Your task to perform on an android device: turn off location history Image 0: 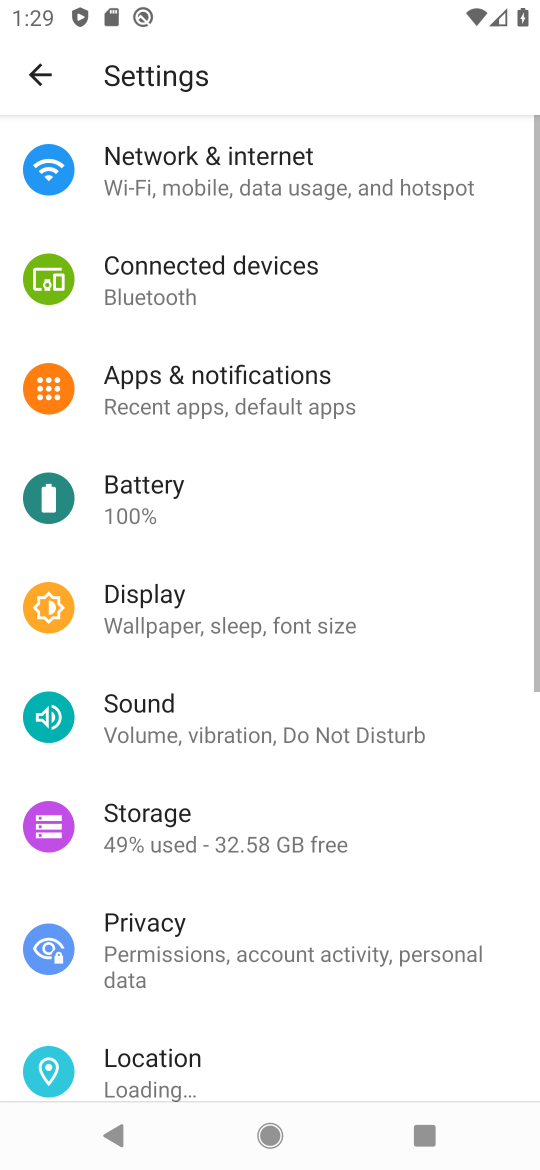
Step 0: drag from (278, 951) to (466, 309)
Your task to perform on an android device: turn off location history Image 1: 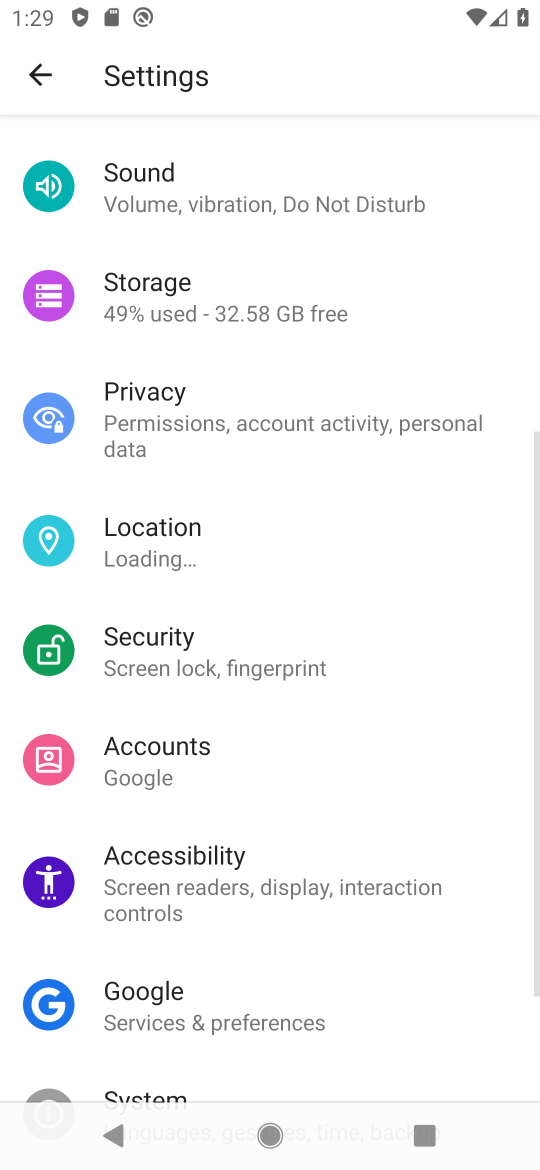
Step 1: press home button
Your task to perform on an android device: turn off location history Image 2: 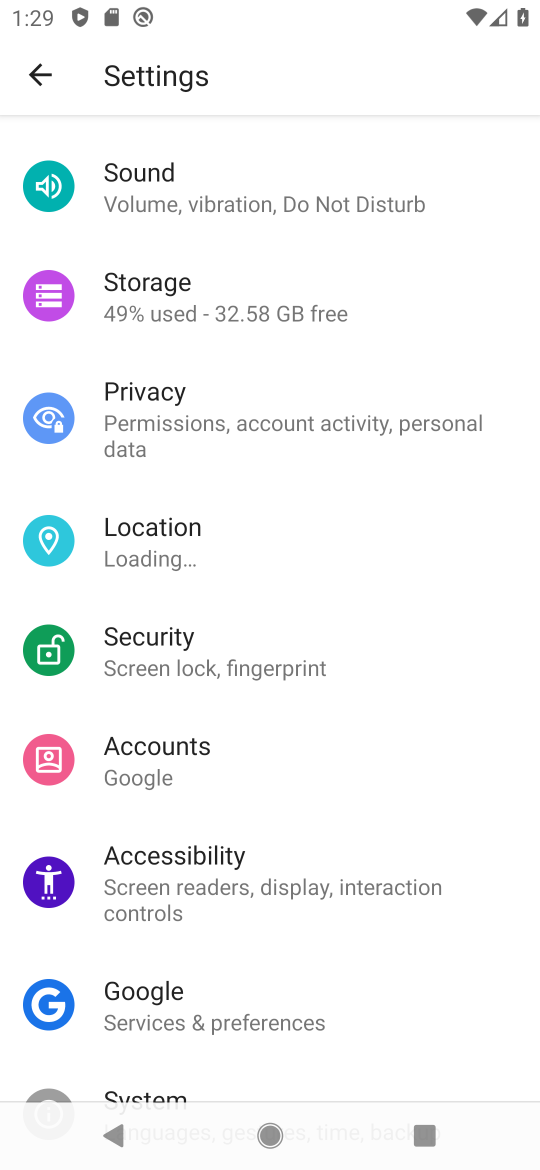
Step 2: drag from (251, 836) to (401, 163)
Your task to perform on an android device: turn off location history Image 3: 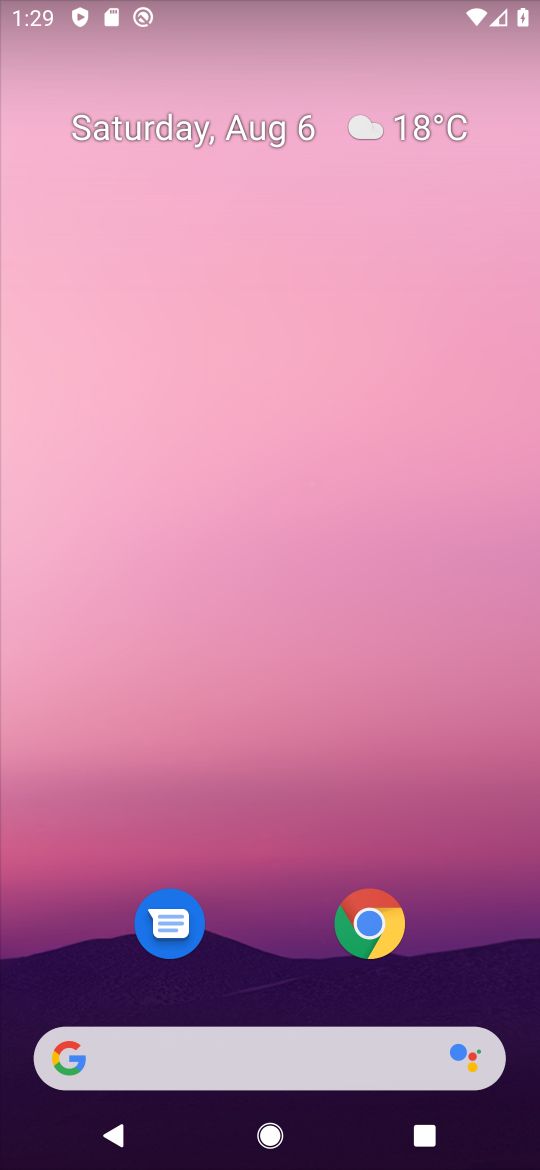
Step 3: drag from (263, 954) to (266, 217)
Your task to perform on an android device: turn off location history Image 4: 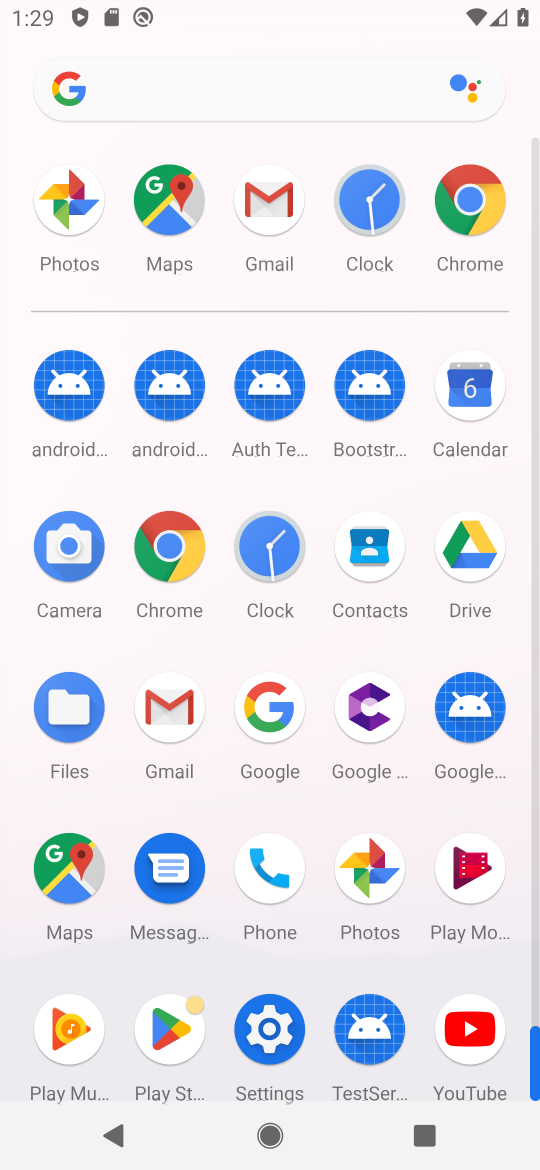
Step 4: click (280, 1025)
Your task to perform on an android device: turn off location history Image 5: 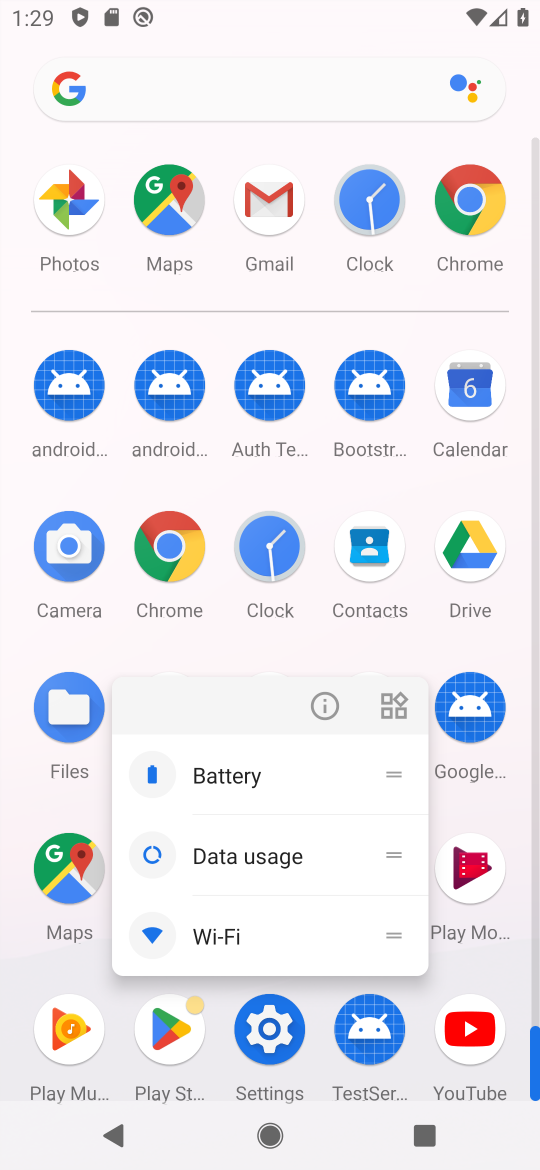
Step 5: click (339, 705)
Your task to perform on an android device: turn off location history Image 6: 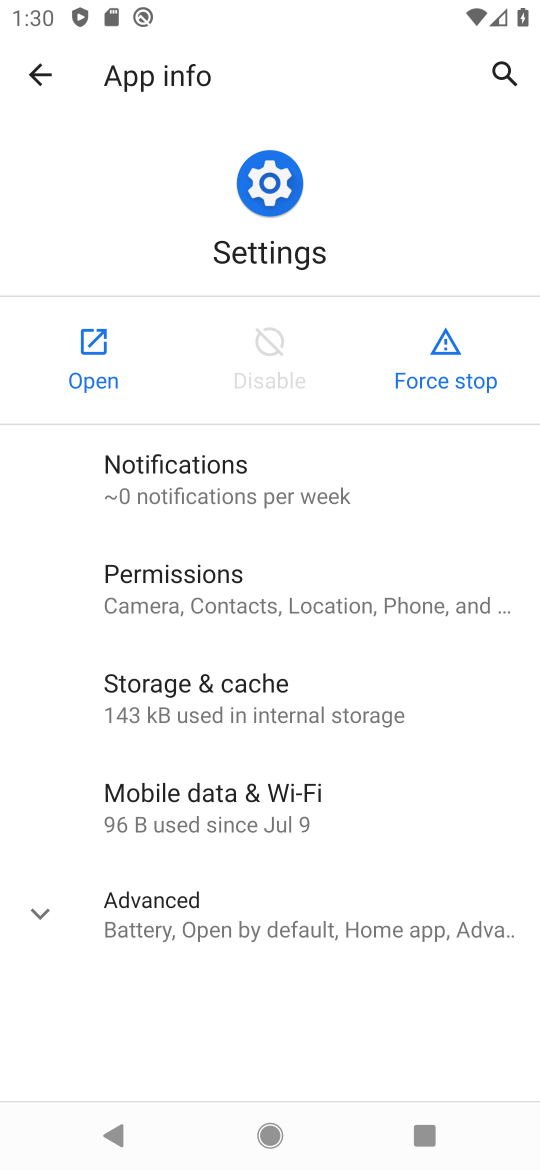
Step 6: click (80, 353)
Your task to perform on an android device: turn off location history Image 7: 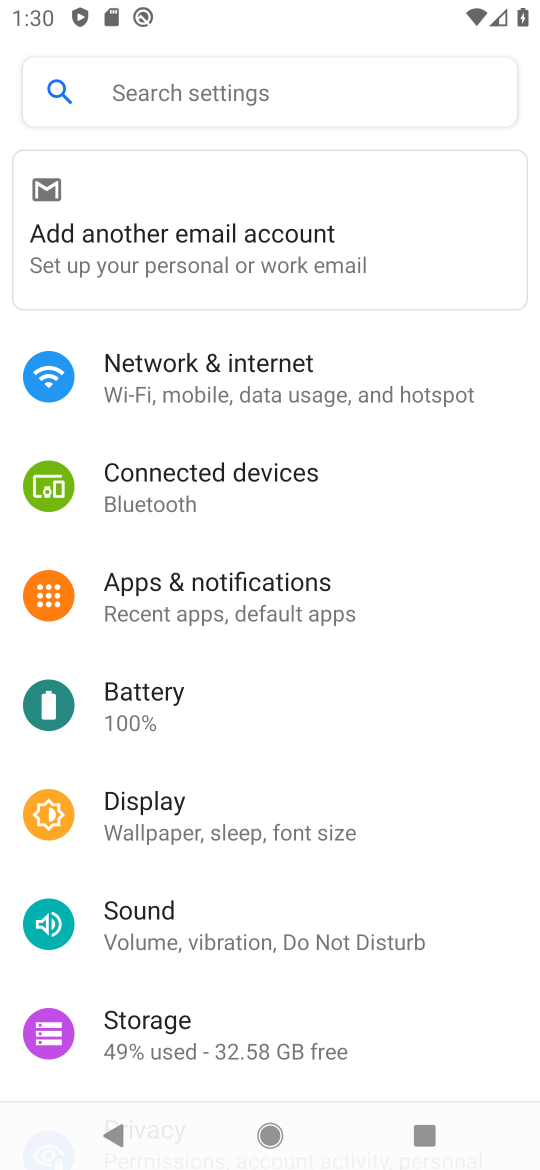
Step 7: drag from (261, 927) to (300, 184)
Your task to perform on an android device: turn off location history Image 8: 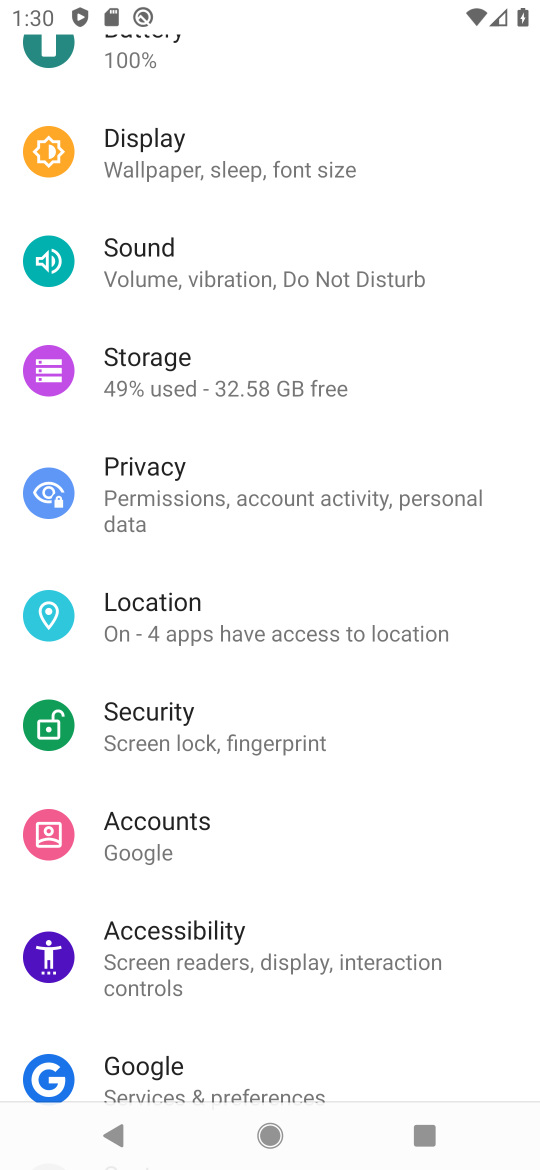
Step 8: click (177, 625)
Your task to perform on an android device: turn off location history Image 9: 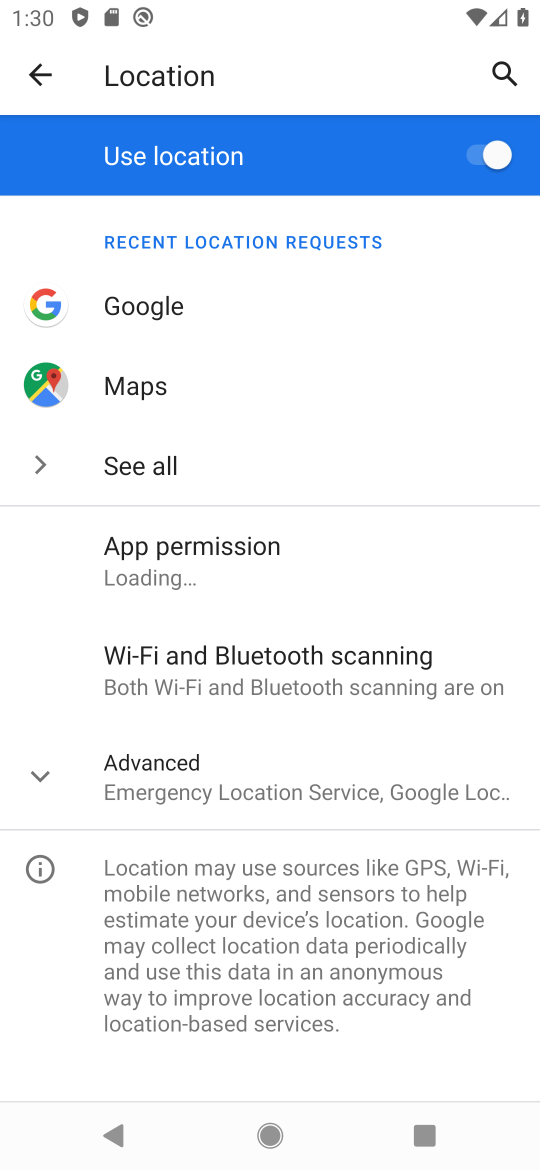
Step 9: click (215, 792)
Your task to perform on an android device: turn off location history Image 10: 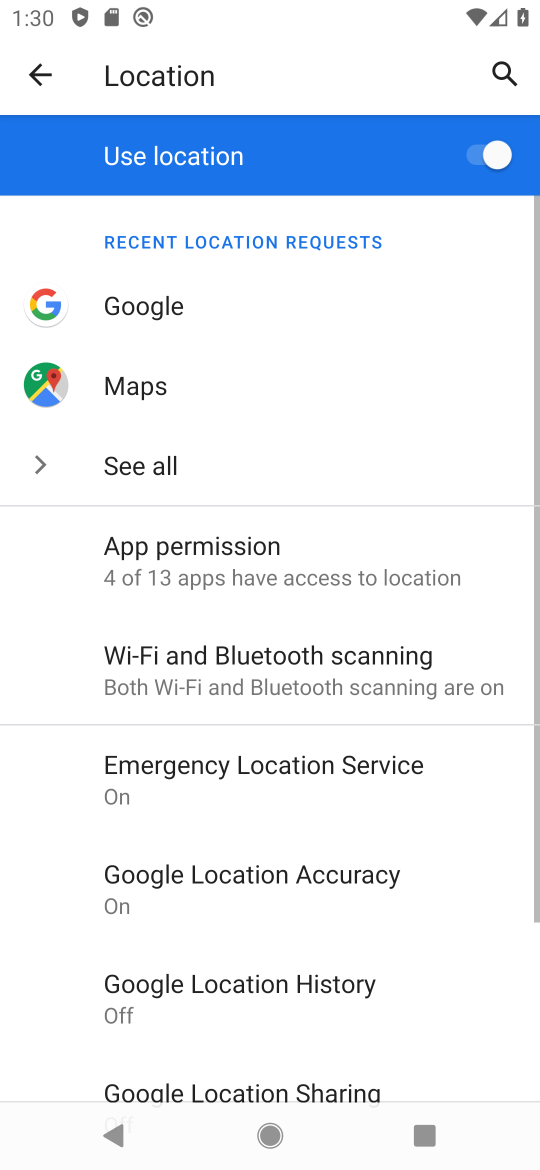
Step 10: click (266, 994)
Your task to perform on an android device: turn off location history Image 11: 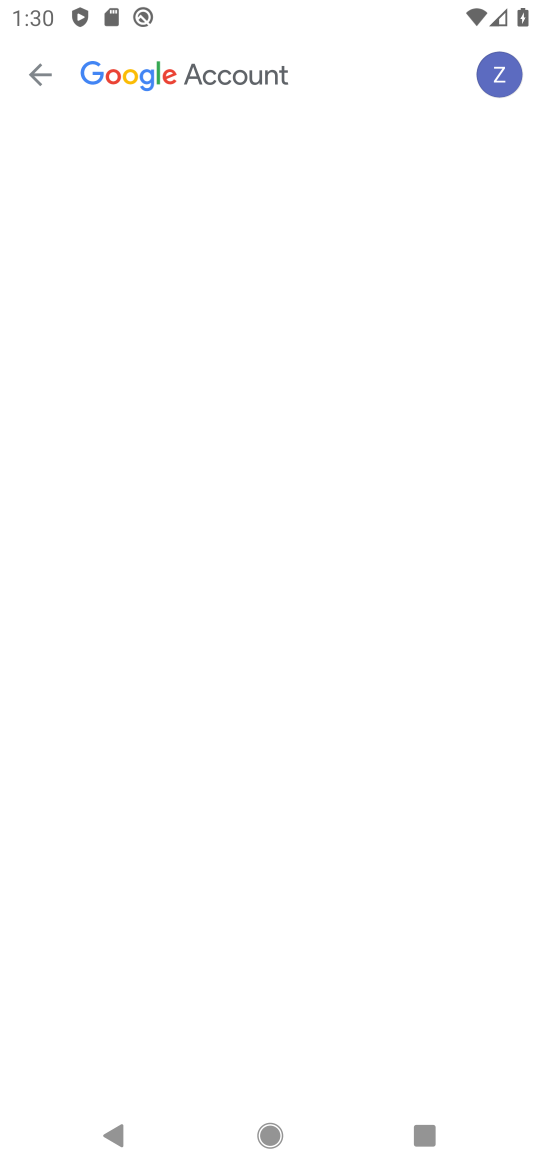
Step 11: drag from (272, 812) to (345, 292)
Your task to perform on an android device: turn off location history Image 12: 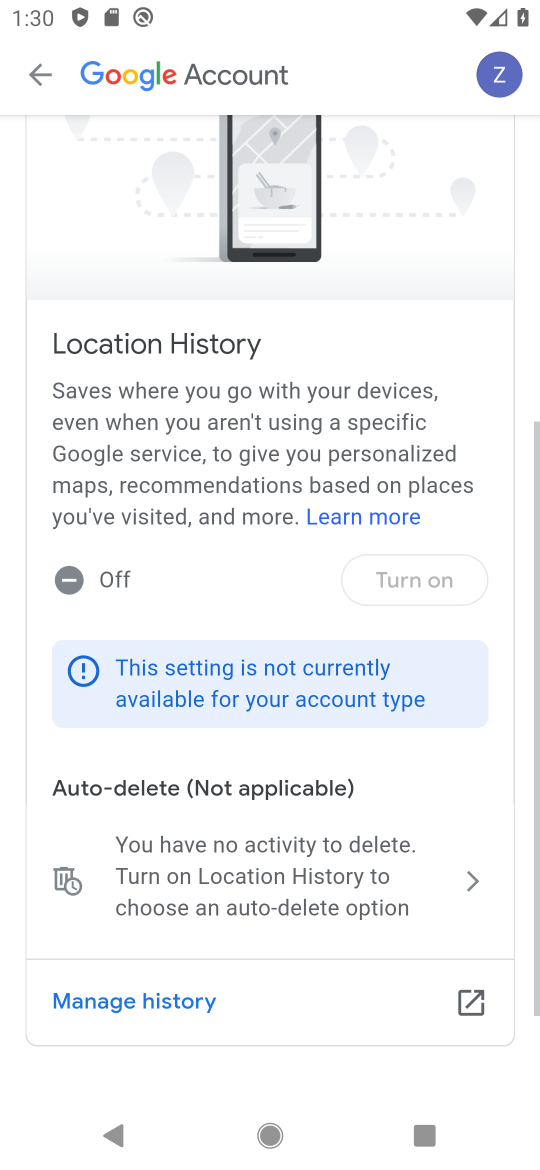
Step 12: drag from (325, 830) to (344, 395)
Your task to perform on an android device: turn off location history Image 13: 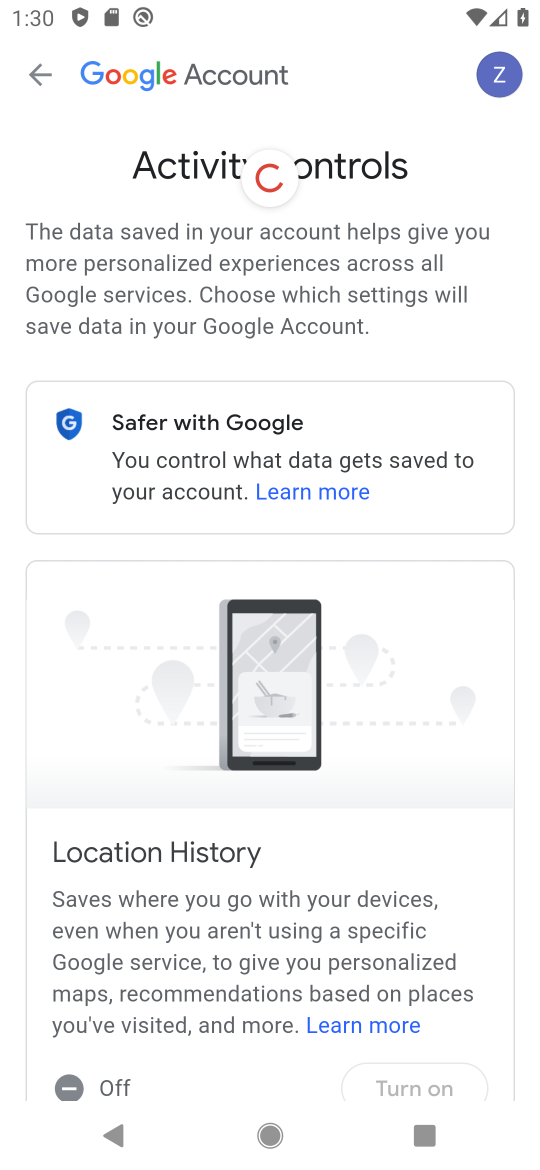
Step 13: drag from (321, 731) to (449, 229)
Your task to perform on an android device: turn off location history Image 14: 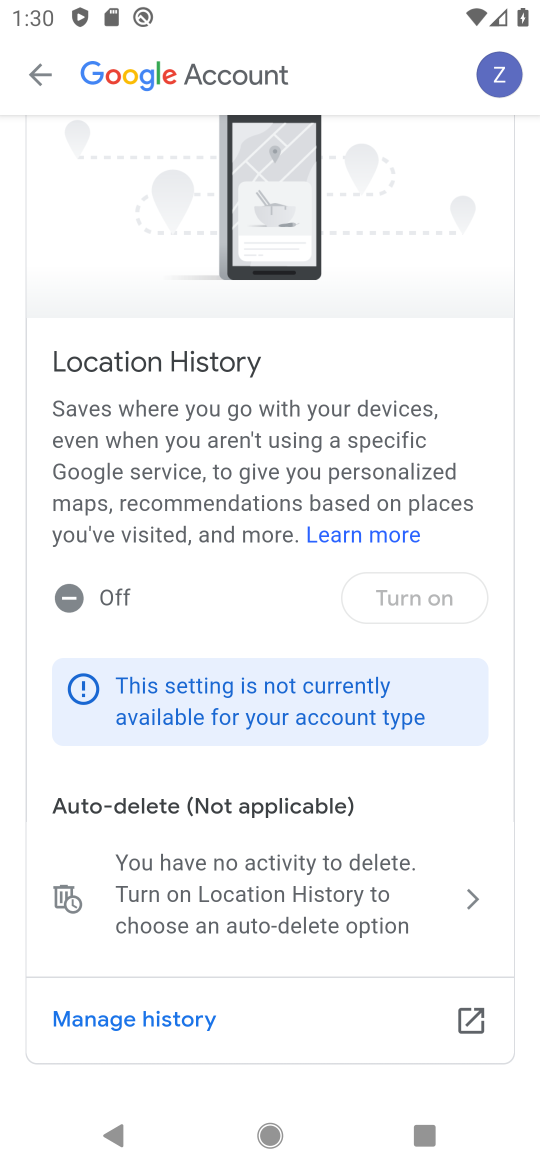
Step 14: drag from (275, 834) to (342, 405)
Your task to perform on an android device: turn off location history Image 15: 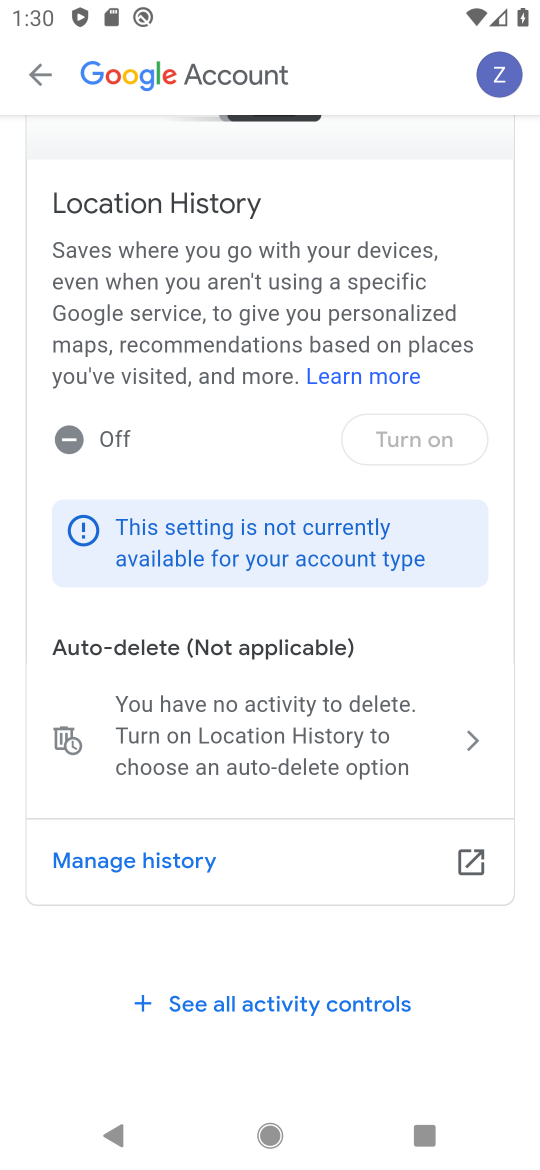
Step 15: click (74, 736)
Your task to perform on an android device: turn off location history Image 16: 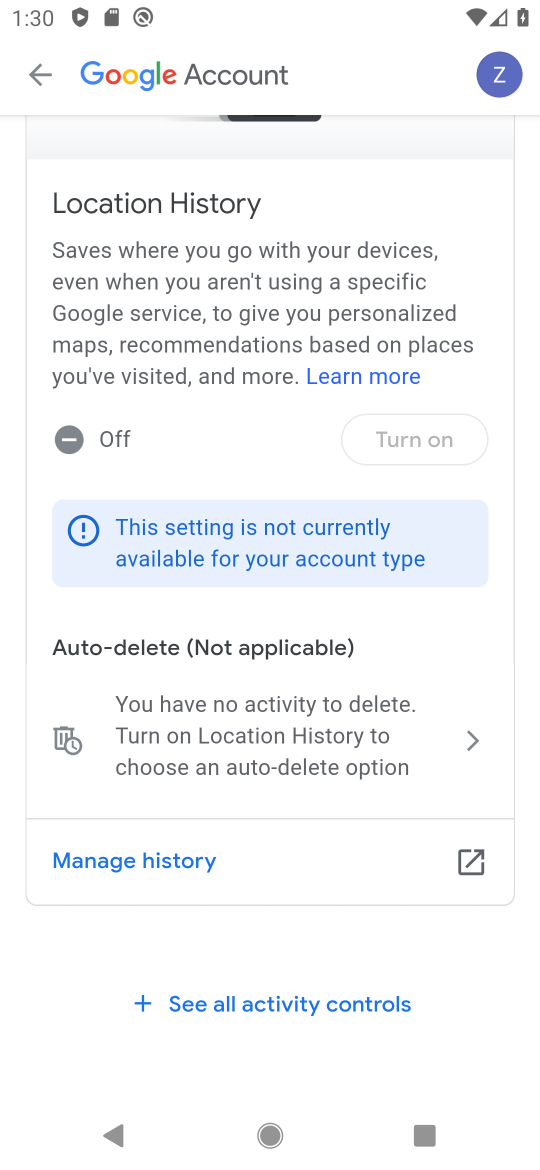
Step 16: task complete